Your task to perform on an android device: Go to battery settings Image 0: 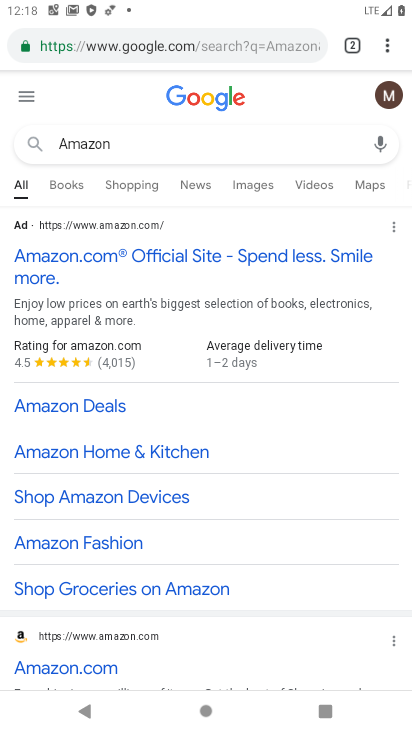
Step 0: press home button
Your task to perform on an android device: Go to battery settings Image 1: 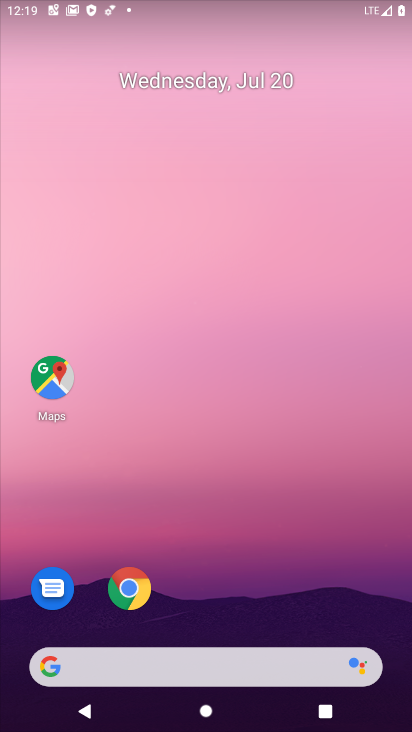
Step 1: drag from (394, 690) to (340, 196)
Your task to perform on an android device: Go to battery settings Image 2: 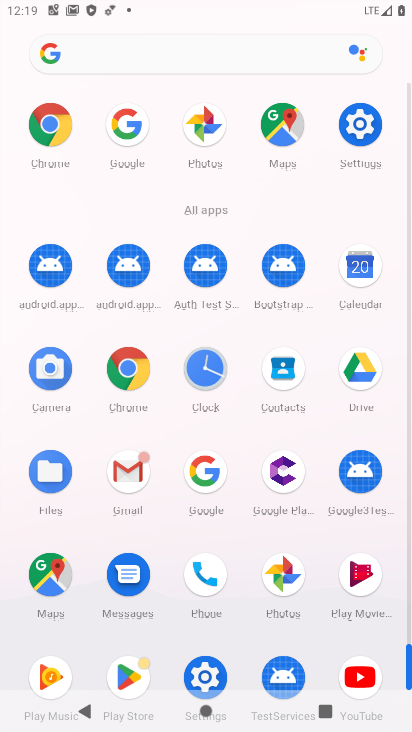
Step 2: click (366, 126)
Your task to perform on an android device: Go to battery settings Image 3: 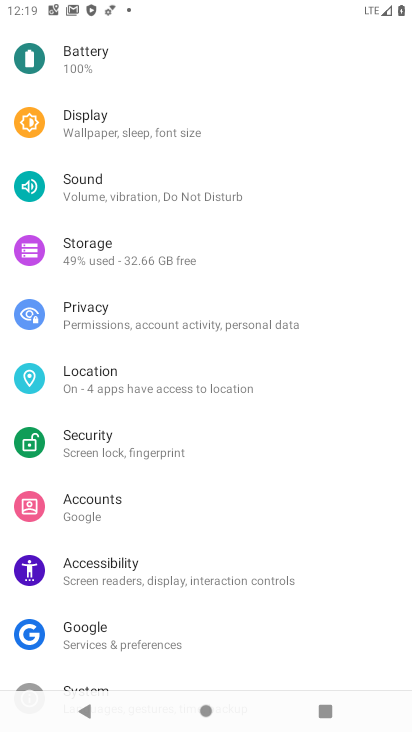
Step 3: click (69, 46)
Your task to perform on an android device: Go to battery settings Image 4: 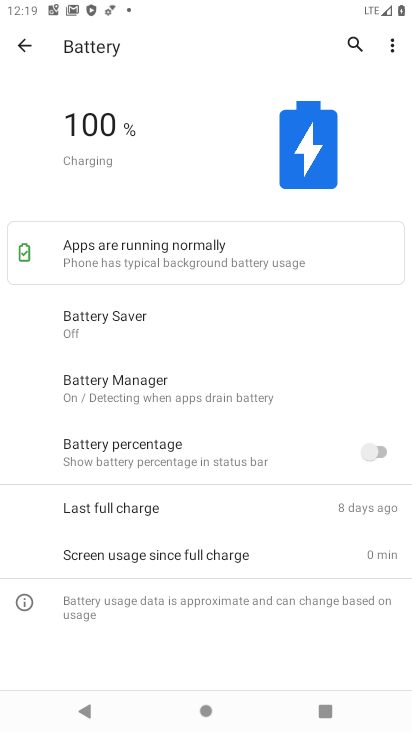
Step 4: task complete